Your task to perform on an android device: turn off priority inbox in the gmail app Image 0: 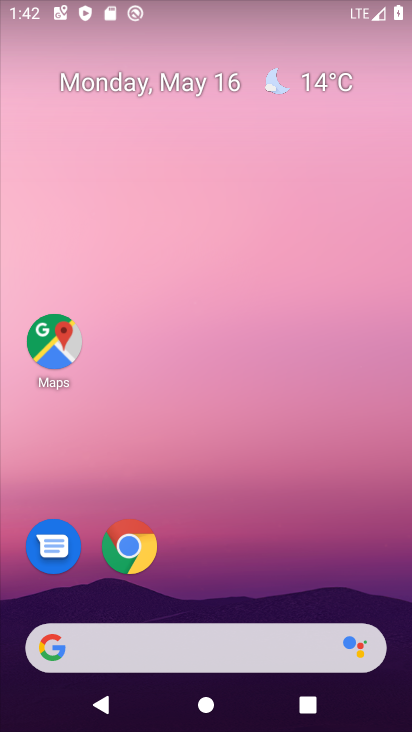
Step 0: press home button
Your task to perform on an android device: turn off priority inbox in the gmail app Image 1: 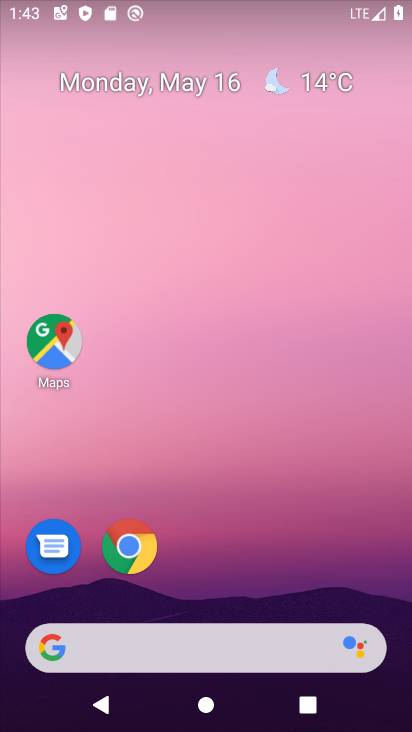
Step 1: drag from (230, 683) to (223, 343)
Your task to perform on an android device: turn off priority inbox in the gmail app Image 2: 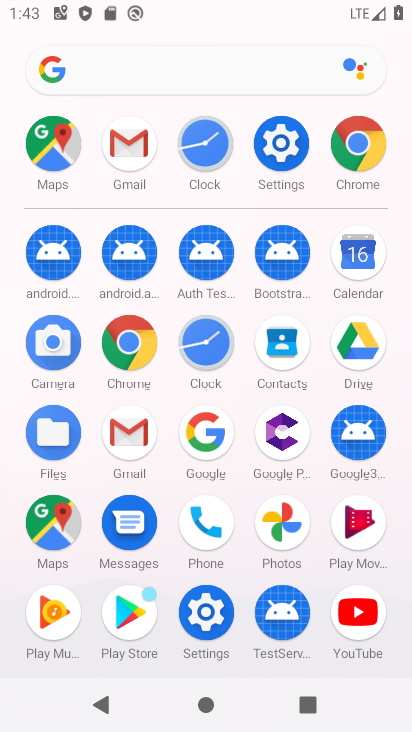
Step 2: click (132, 150)
Your task to perform on an android device: turn off priority inbox in the gmail app Image 3: 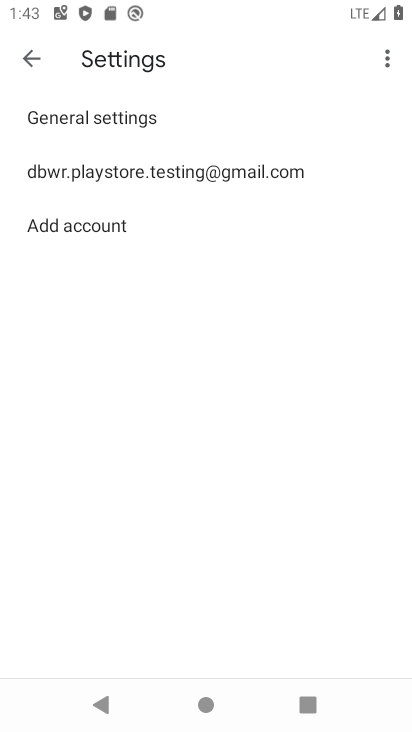
Step 3: click (169, 176)
Your task to perform on an android device: turn off priority inbox in the gmail app Image 4: 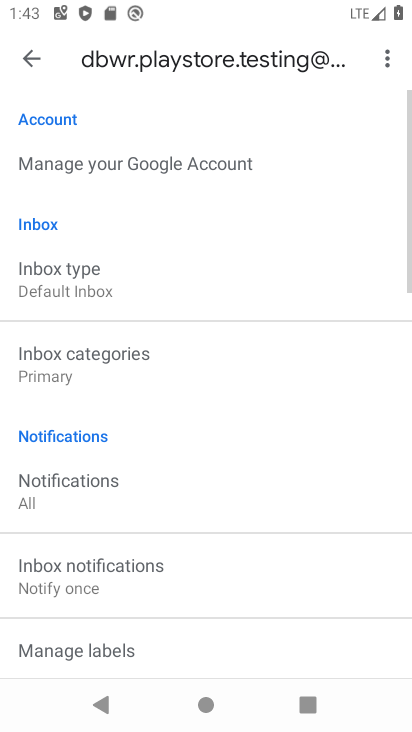
Step 4: click (119, 260)
Your task to perform on an android device: turn off priority inbox in the gmail app Image 5: 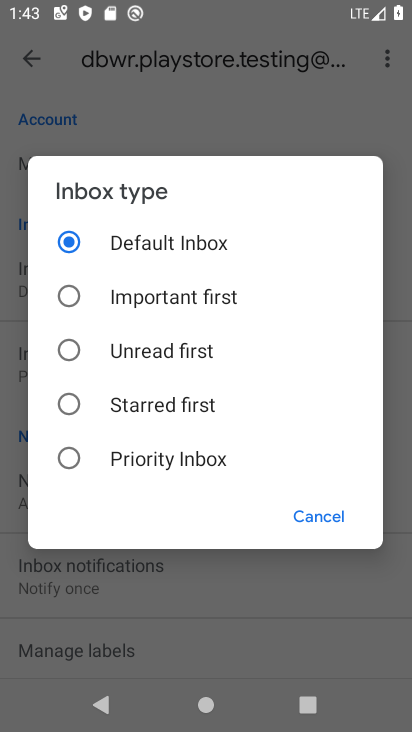
Step 5: task complete